Your task to perform on an android device: Open my contact list Image 0: 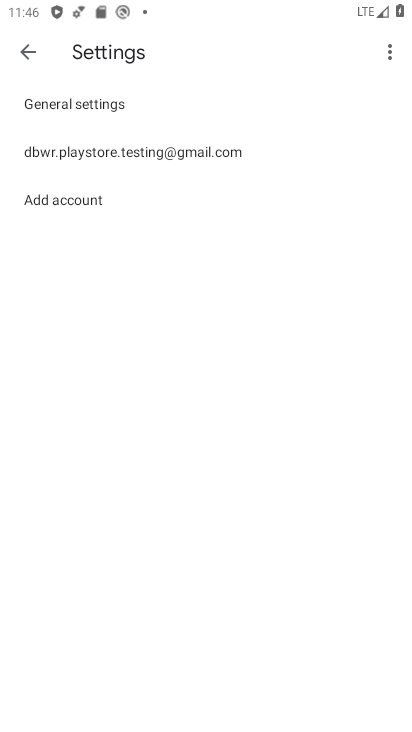
Step 0: press home button
Your task to perform on an android device: Open my contact list Image 1: 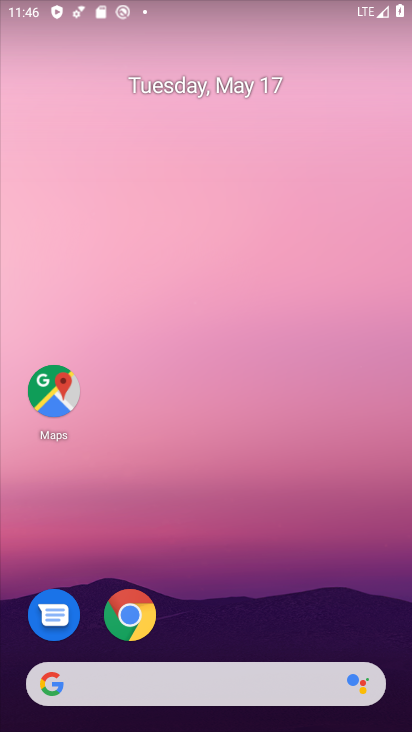
Step 1: drag from (216, 682) to (316, 260)
Your task to perform on an android device: Open my contact list Image 2: 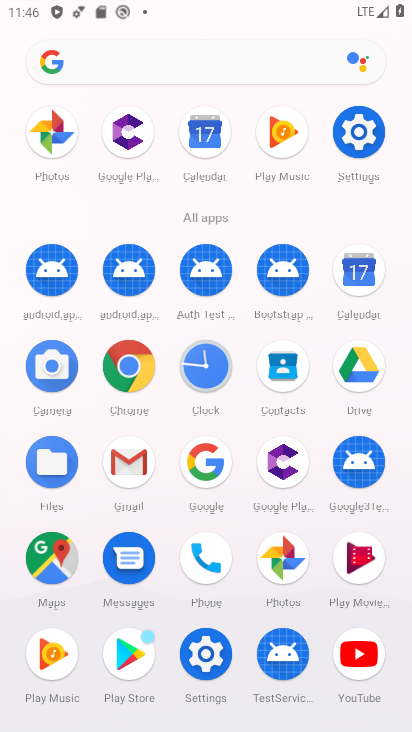
Step 2: click (207, 569)
Your task to perform on an android device: Open my contact list Image 3: 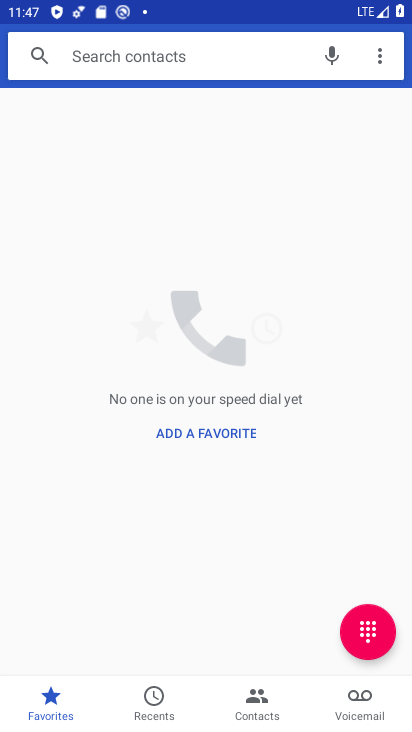
Step 3: click (249, 707)
Your task to perform on an android device: Open my contact list Image 4: 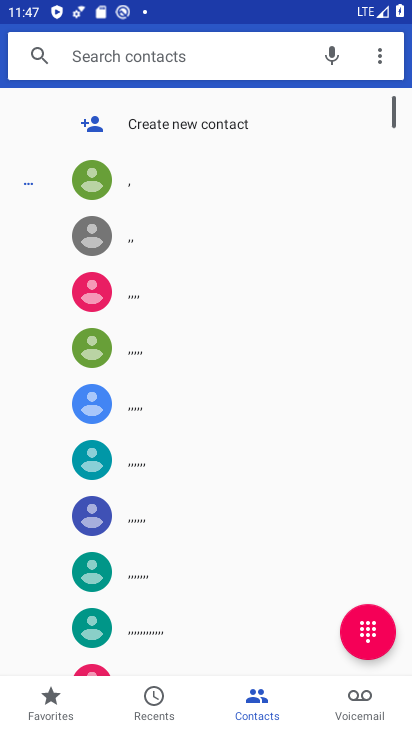
Step 4: task complete